Your task to perform on an android device: Search for Italian restaurants on Maps Image 0: 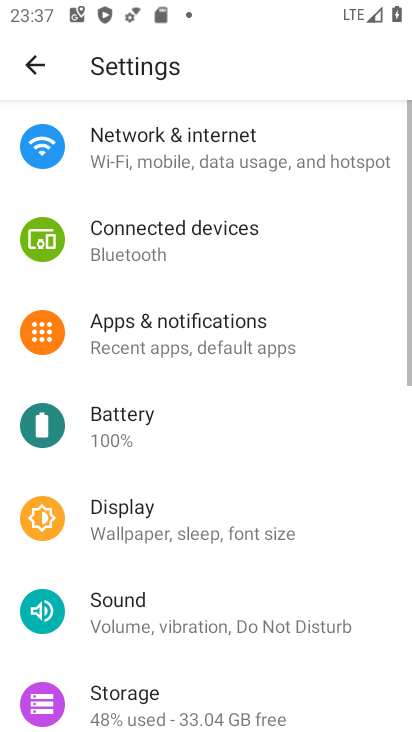
Step 0: press home button
Your task to perform on an android device: Search for Italian restaurants on Maps Image 1: 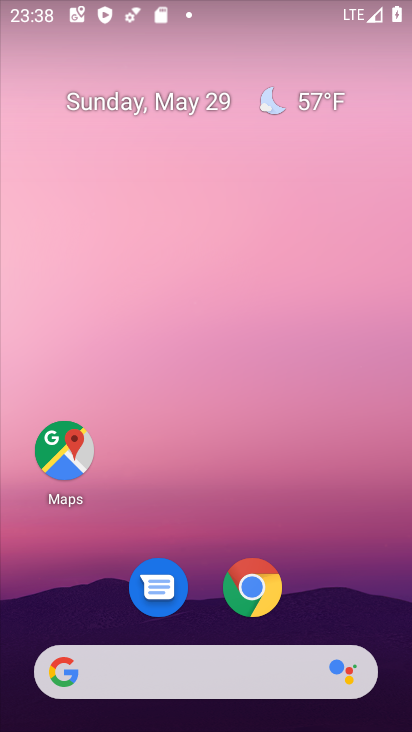
Step 1: drag from (375, 600) to (320, 201)
Your task to perform on an android device: Search for Italian restaurants on Maps Image 2: 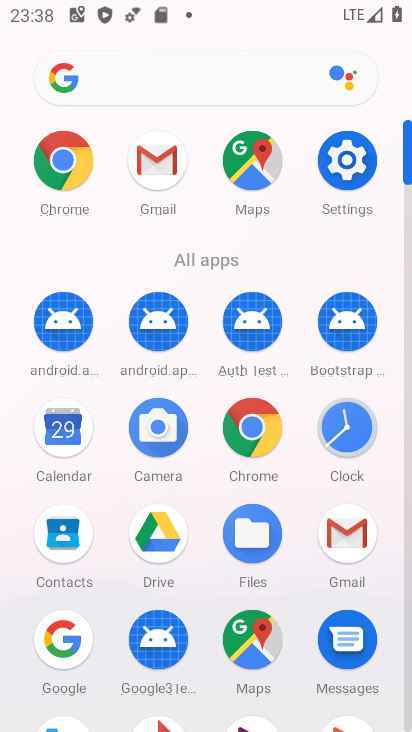
Step 2: click (263, 163)
Your task to perform on an android device: Search for Italian restaurants on Maps Image 3: 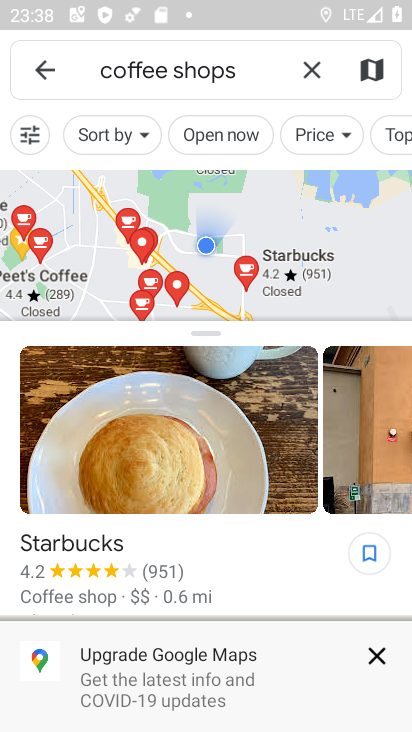
Step 3: click (304, 76)
Your task to perform on an android device: Search for Italian restaurants on Maps Image 4: 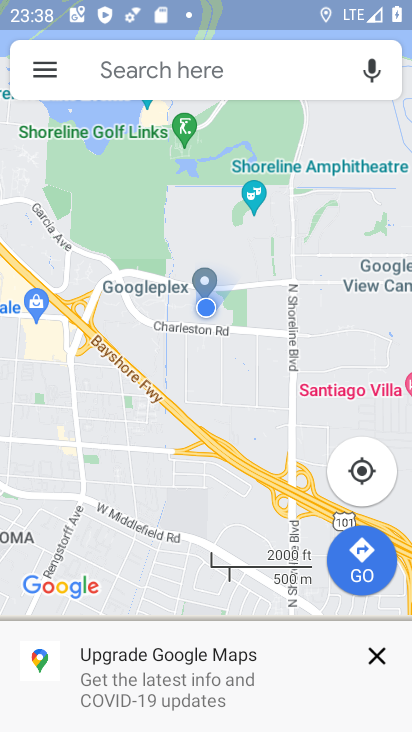
Step 4: click (226, 66)
Your task to perform on an android device: Search for Italian restaurants on Maps Image 5: 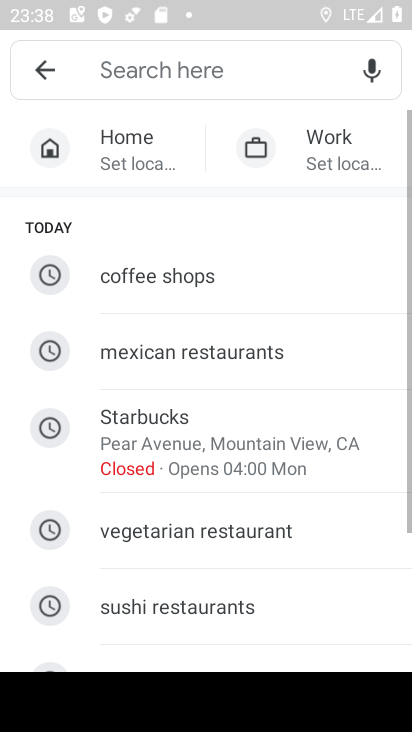
Step 5: drag from (230, 590) to (212, 253)
Your task to perform on an android device: Search for Italian restaurants on Maps Image 6: 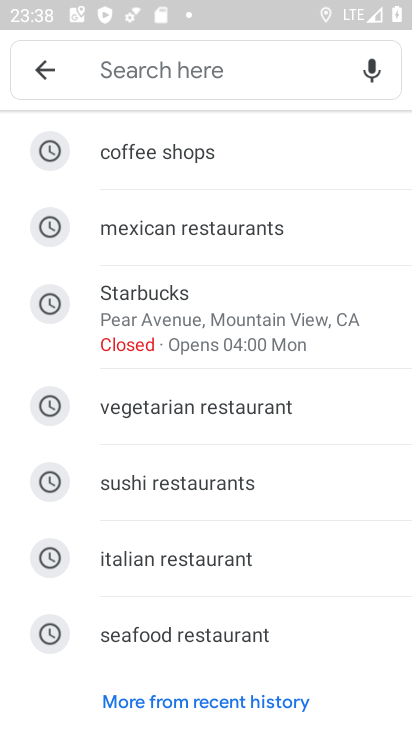
Step 6: click (204, 571)
Your task to perform on an android device: Search for Italian restaurants on Maps Image 7: 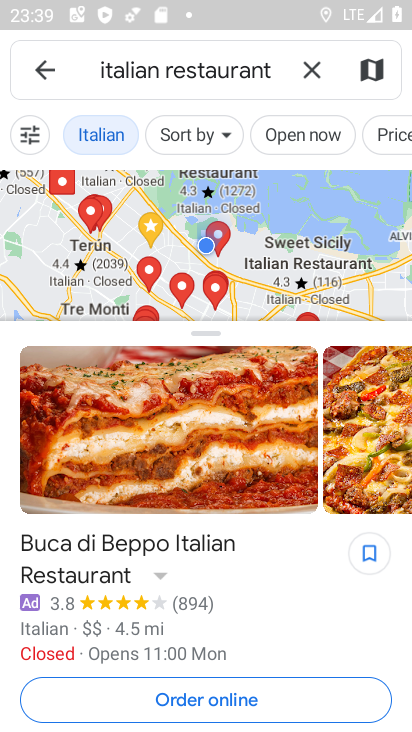
Step 7: task complete